Your task to perform on an android device: move an email to a new category in the gmail app Image 0: 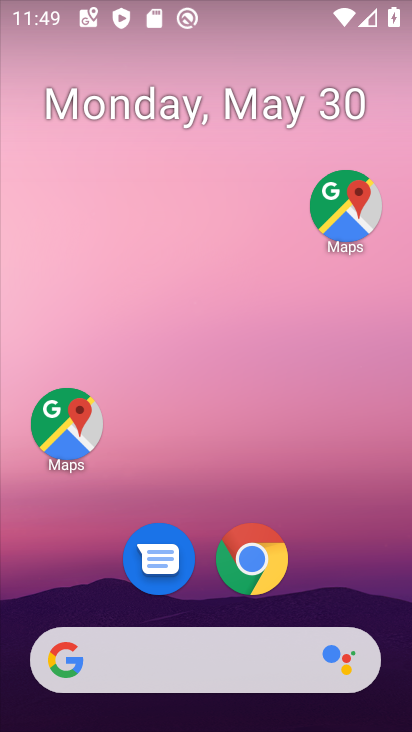
Step 0: drag from (345, 565) to (241, 95)
Your task to perform on an android device: move an email to a new category in the gmail app Image 1: 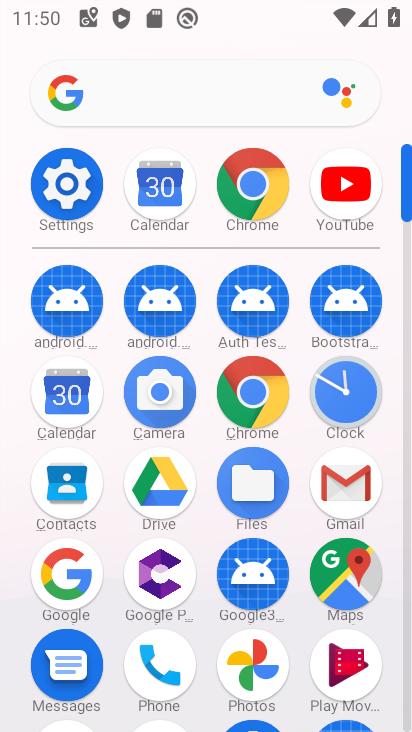
Step 1: click (365, 476)
Your task to perform on an android device: move an email to a new category in the gmail app Image 2: 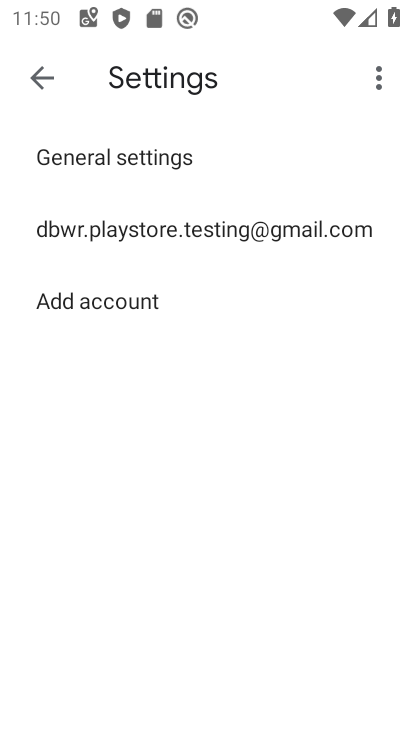
Step 2: click (35, 76)
Your task to perform on an android device: move an email to a new category in the gmail app Image 3: 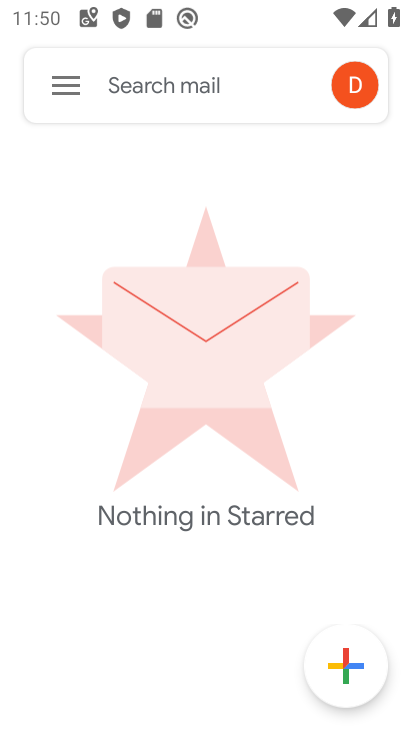
Step 3: click (60, 62)
Your task to perform on an android device: move an email to a new category in the gmail app Image 4: 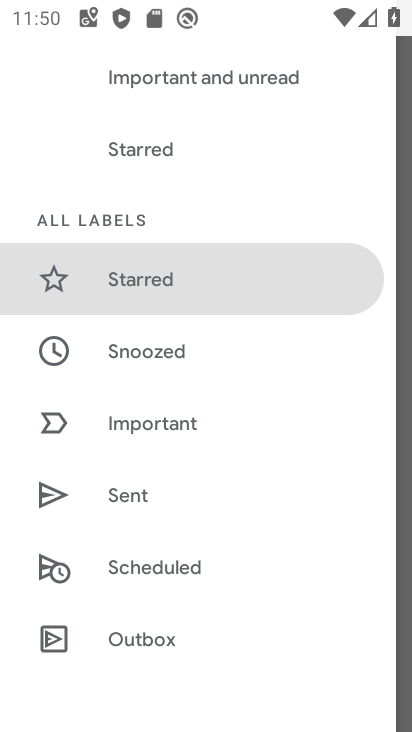
Step 4: drag from (206, 635) to (277, 204)
Your task to perform on an android device: move an email to a new category in the gmail app Image 5: 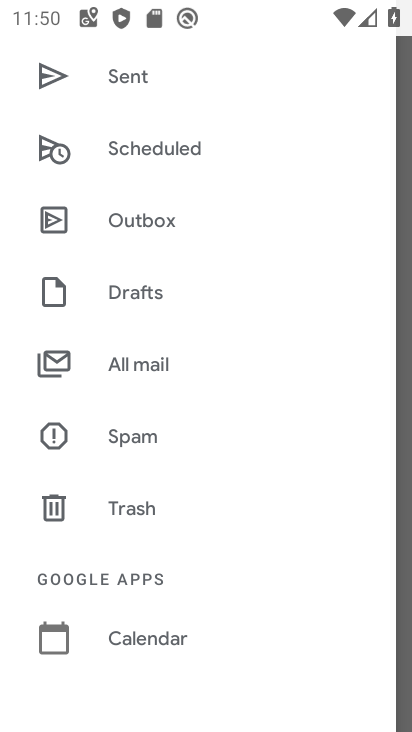
Step 5: click (135, 365)
Your task to perform on an android device: move an email to a new category in the gmail app Image 6: 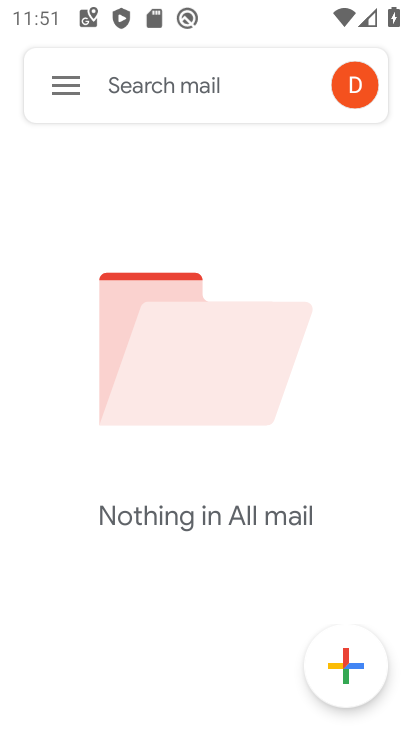
Step 6: task complete